Your task to perform on an android device: Open my contact list Image 0: 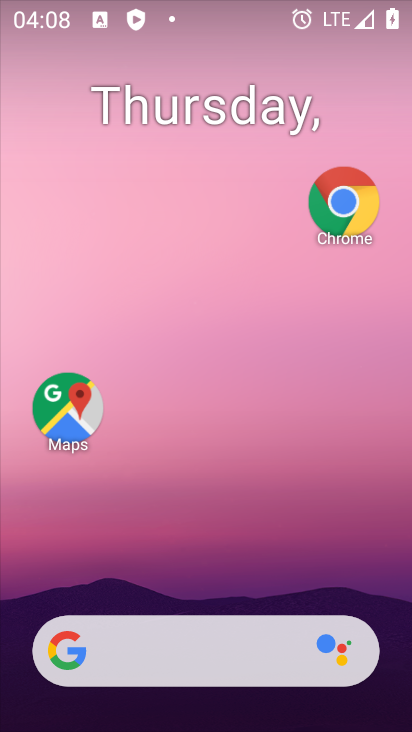
Step 0: drag from (144, 653) to (249, 98)
Your task to perform on an android device: Open my contact list Image 1: 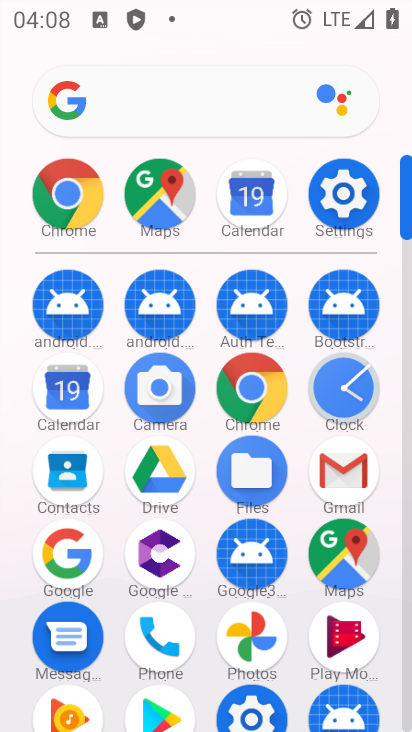
Step 1: click (89, 478)
Your task to perform on an android device: Open my contact list Image 2: 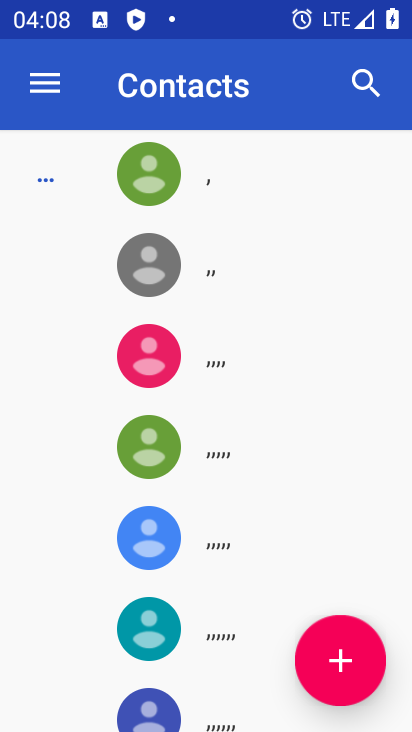
Step 2: task complete